Your task to perform on an android device: turn on javascript in the chrome app Image 0: 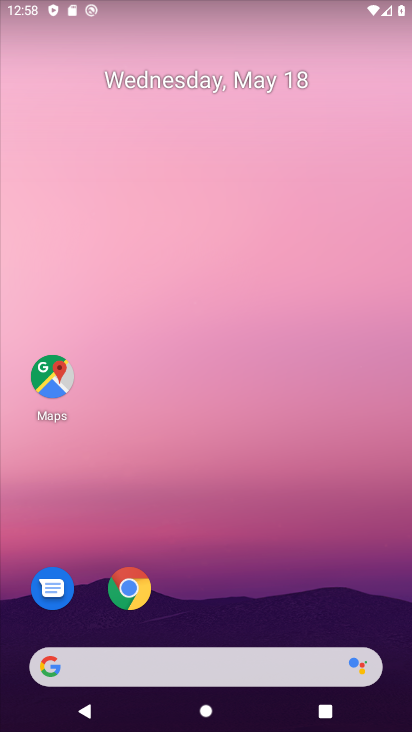
Step 0: drag from (357, 595) to (348, 145)
Your task to perform on an android device: turn on javascript in the chrome app Image 1: 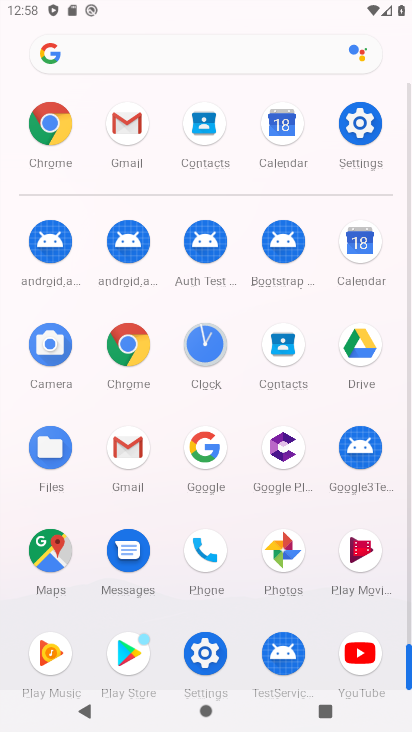
Step 1: click (130, 353)
Your task to perform on an android device: turn on javascript in the chrome app Image 2: 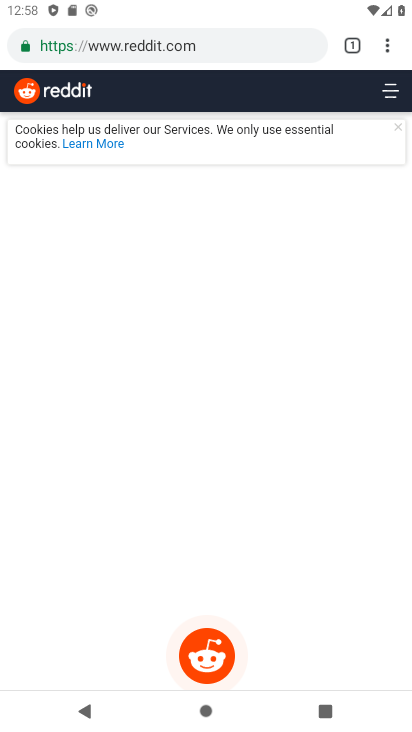
Step 2: click (388, 49)
Your task to perform on an android device: turn on javascript in the chrome app Image 3: 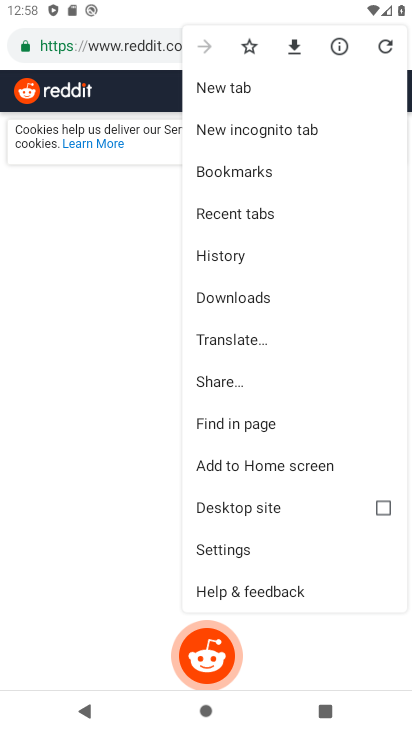
Step 3: click (241, 561)
Your task to perform on an android device: turn on javascript in the chrome app Image 4: 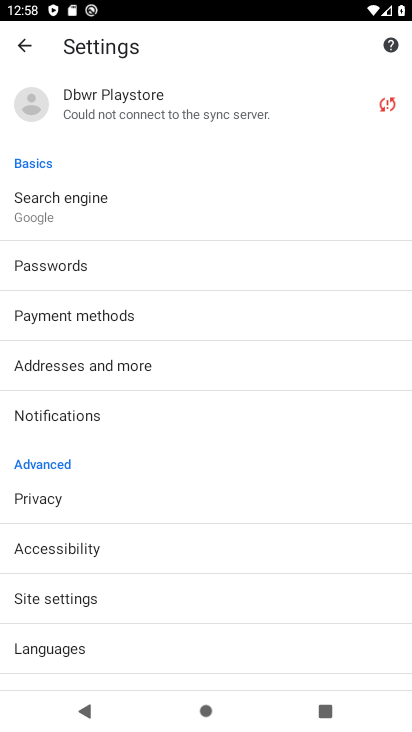
Step 4: drag from (254, 539) to (264, 416)
Your task to perform on an android device: turn on javascript in the chrome app Image 5: 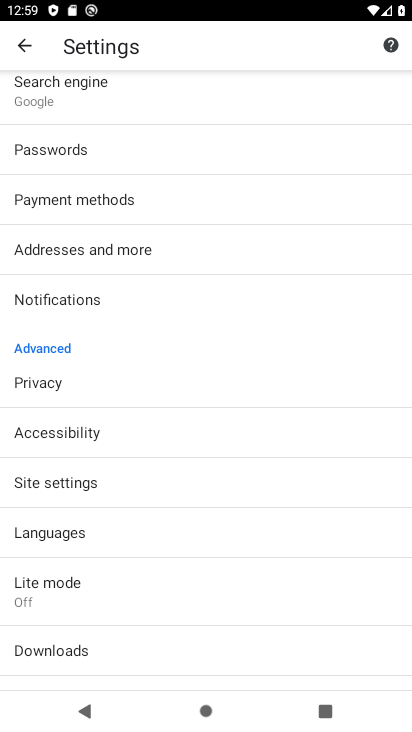
Step 5: drag from (263, 646) to (261, 455)
Your task to perform on an android device: turn on javascript in the chrome app Image 6: 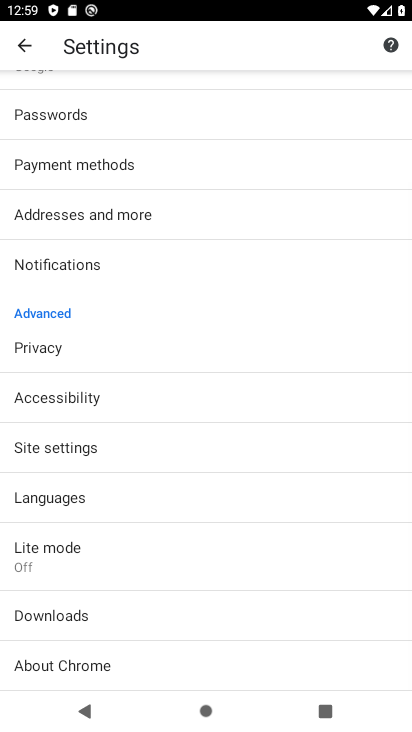
Step 6: drag from (271, 360) to (268, 439)
Your task to perform on an android device: turn on javascript in the chrome app Image 7: 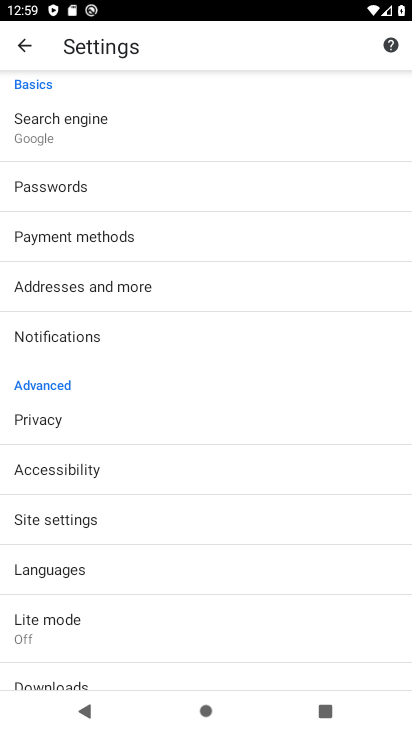
Step 7: drag from (272, 334) to (267, 450)
Your task to perform on an android device: turn on javascript in the chrome app Image 8: 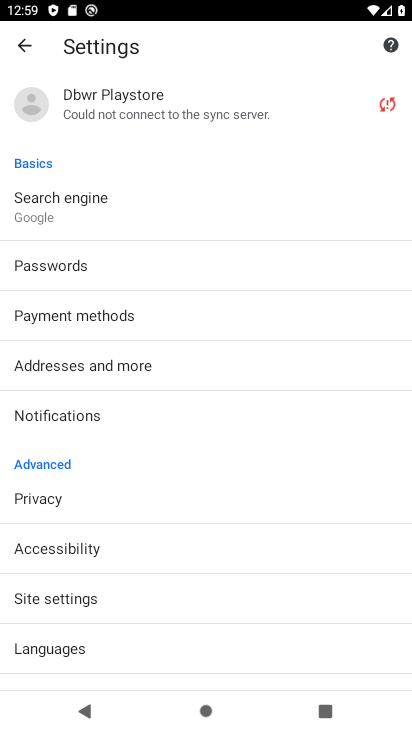
Step 8: drag from (276, 315) to (268, 504)
Your task to perform on an android device: turn on javascript in the chrome app Image 9: 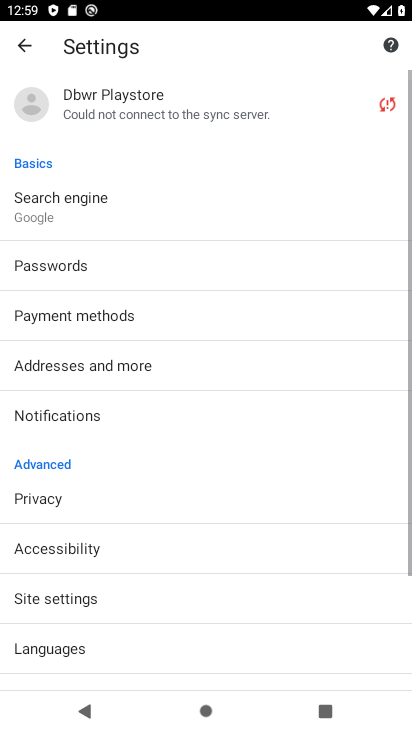
Step 9: drag from (268, 589) to (273, 378)
Your task to perform on an android device: turn on javascript in the chrome app Image 10: 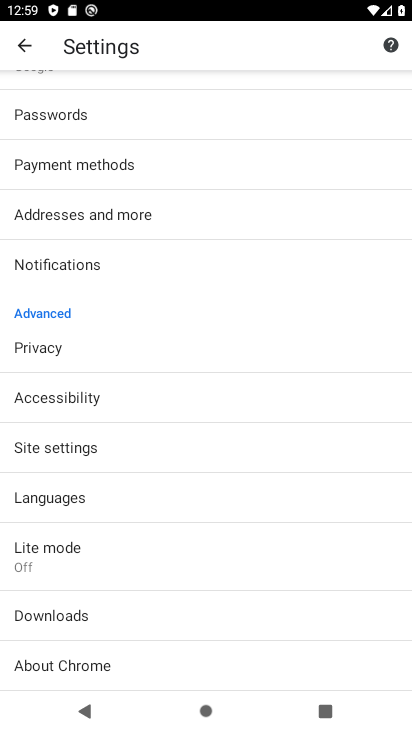
Step 10: drag from (250, 607) to (243, 425)
Your task to perform on an android device: turn on javascript in the chrome app Image 11: 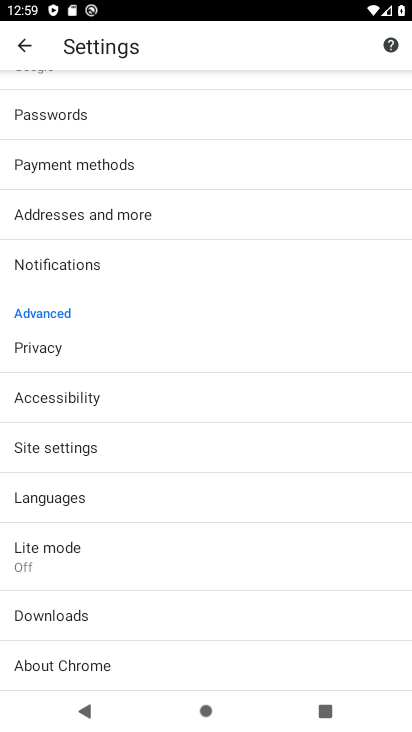
Step 11: click (162, 445)
Your task to perform on an android device: turn on javascript in the chrome app Image 12: 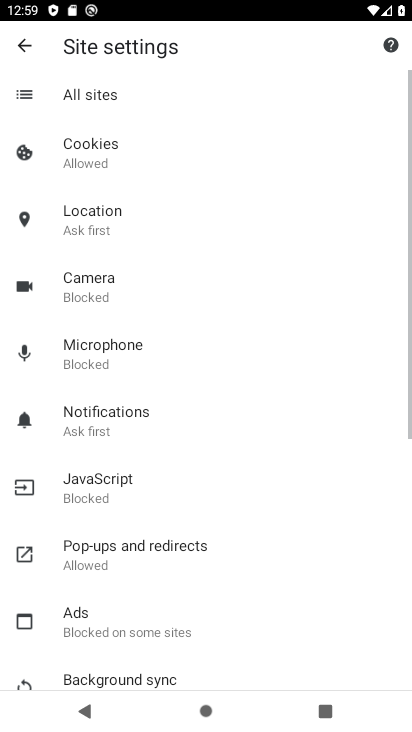
Step 12: drag from (284, 604) to (295, 372)
Your task to perform on an android device: turn on javascript in the chrome app Image 13: 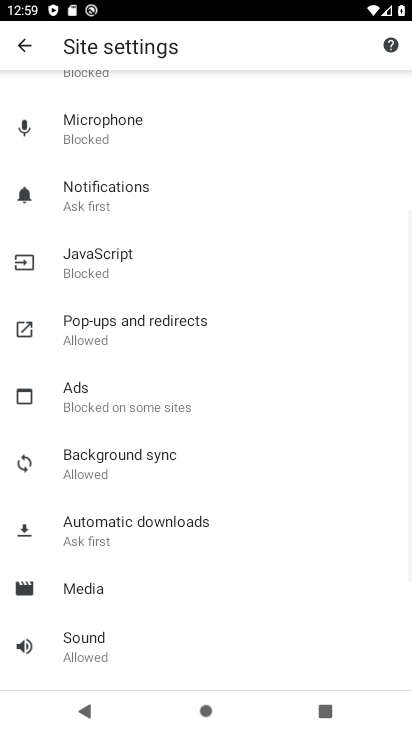
Step 13: drag from (285, 618) to (283, 369)
Your task to perform on an android device: turn on javascript in the chrome app Image 14: 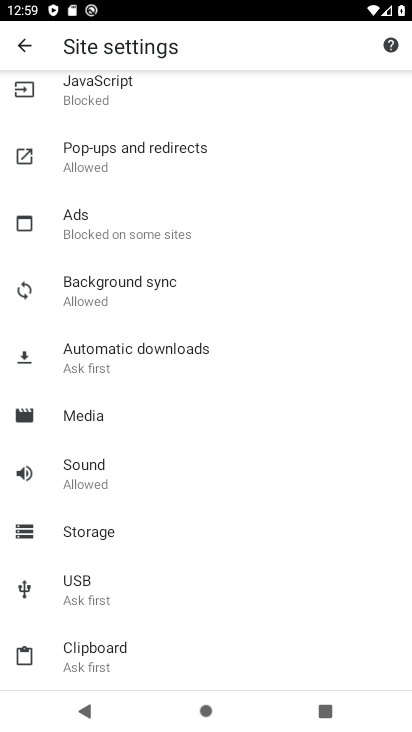
Step 14: drag from (263, 600) to (279, 373)
Your task to perform on an android device: turn on javascript in the chrome app Image 15: 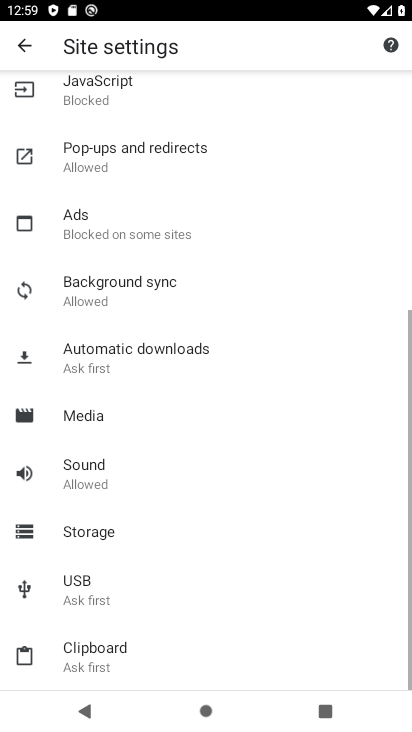
Step 15: drag from (293, 301) to (294, 404)
Your task to perform on an android device: turn on javascript in the chrome app Image 16: 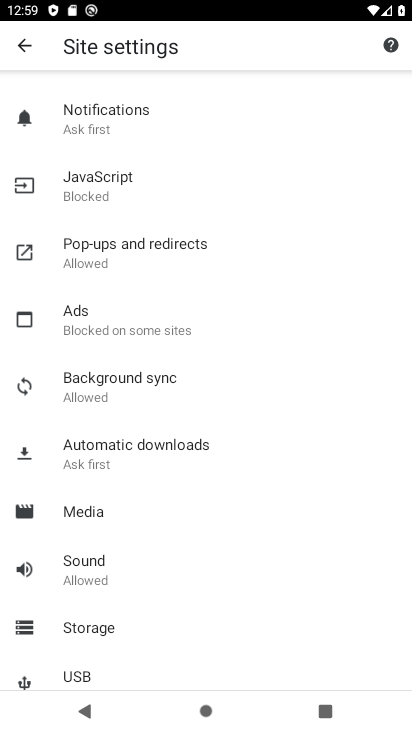
Step 16: drag from (325, 273) to (296, 433)
Your task to perform on an android device: turn on javascript in the chrome app Image 17: 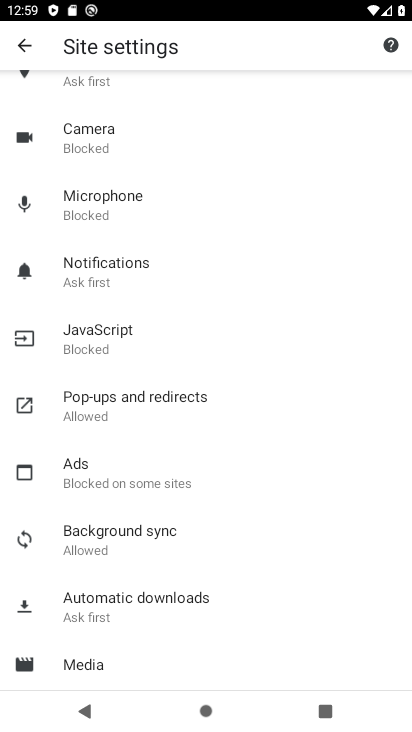
Step 17: drag from (300, 254) to (277, 474)
Your task to perform on an android device: turn on javascript in the chrome app Image 18: 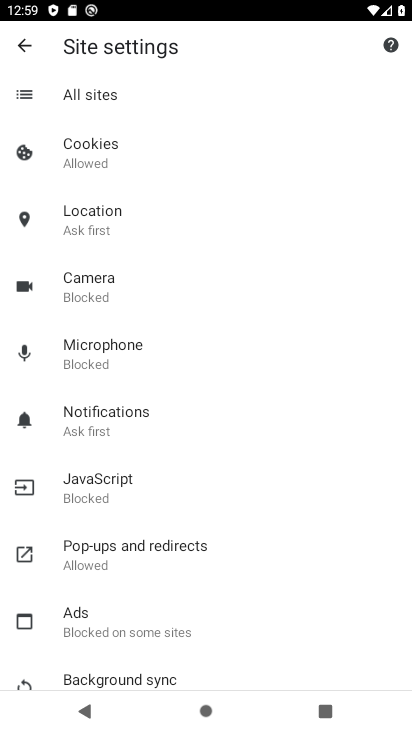
Step 18: drag from (272, 239) to (247, 466)
Your task to perform on an android device: turn on javascript in the chrome app Image 19: 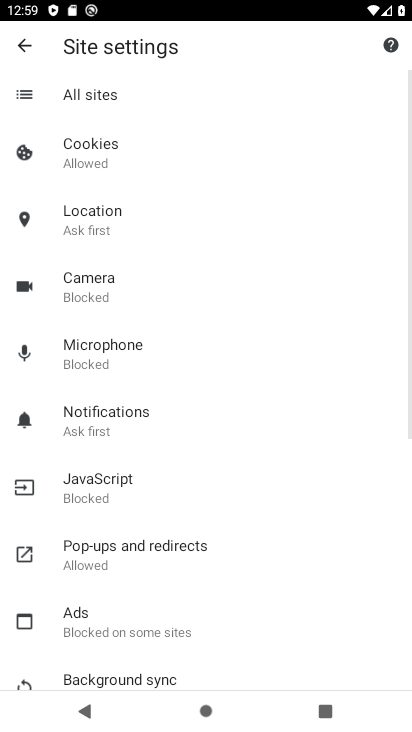
Step 19: drag from (284, 574) to (270, 378)
Your task to perform on an android device: turn on javascript in the chrome app Image 20: 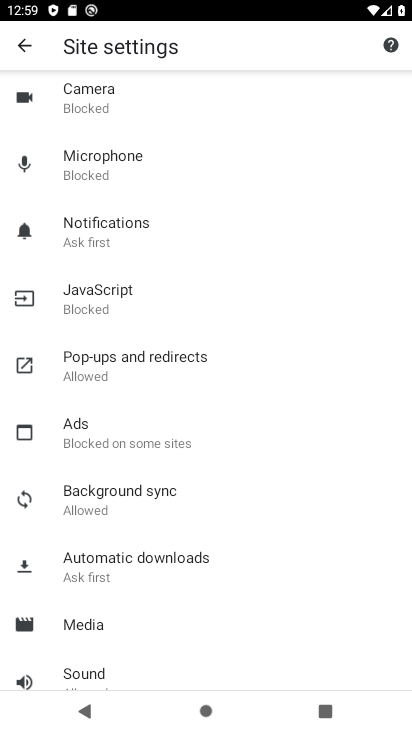
Step 20: drag from (263, 432) to (263, 311)
Your task to perform on an android device: turn on javascript in the chrome app Image 21: 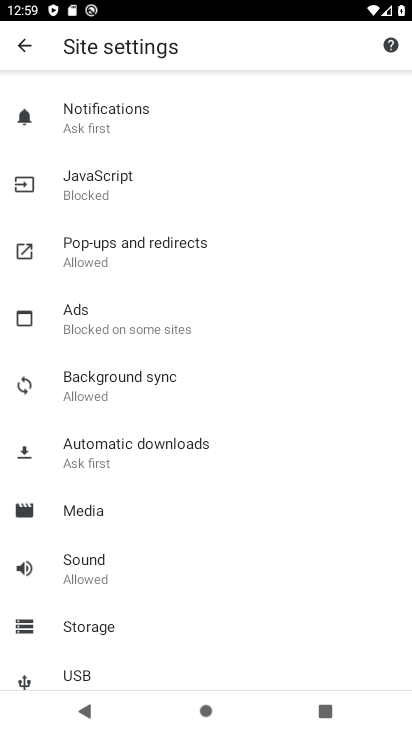
Step 21: click (100, 181)
Your task to perform on an android device: turn on javascript in the chrome app Image 22: 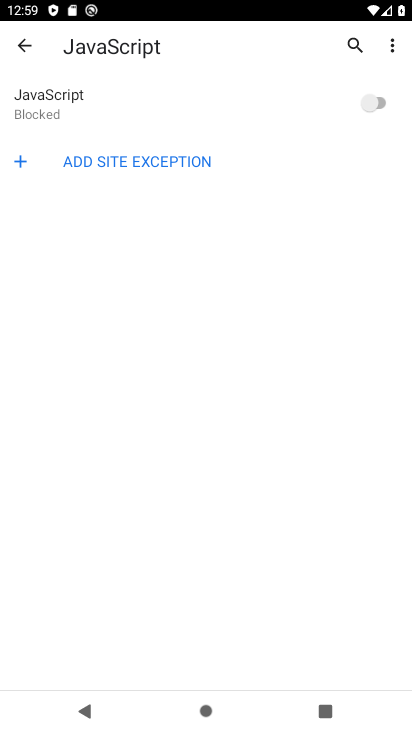
Step 22: click (372, 97)
Your task to perform on an android device: turn on javascript in the chrome app Image 23: 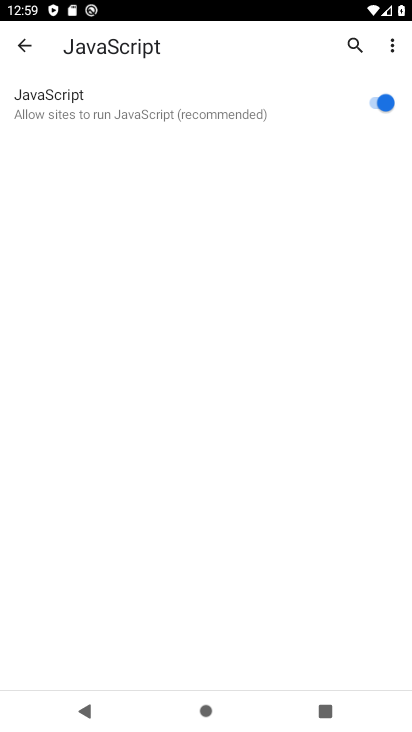
Step 23: task complete